Your task to perform on an android device: Go to location settings Image 0: 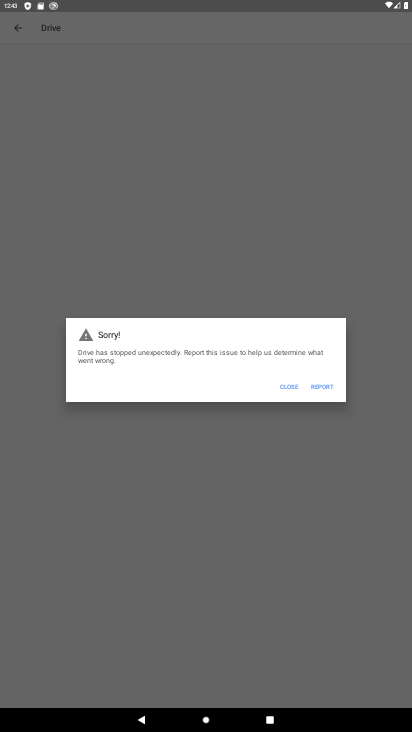
Step 0: press home button
Your task to perform on an android device: Go to location settings Image 1: 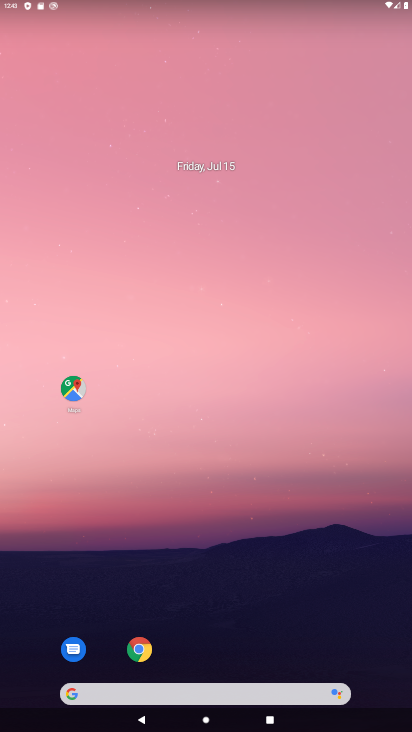
Step 1: drag from (228, 636) to (358, 15)
Your task to perform on an android device: Go to location settings Image 2: 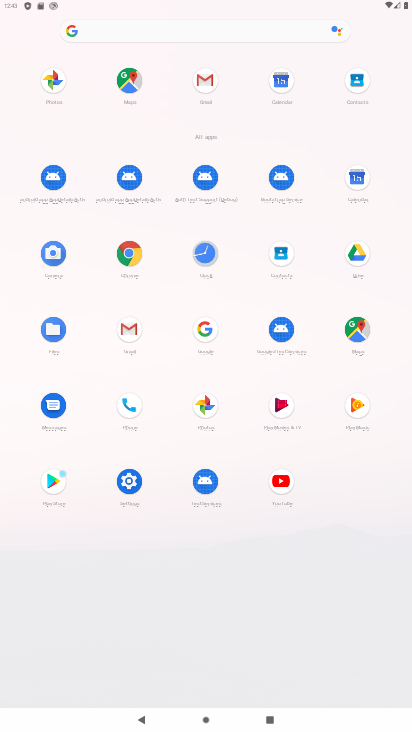
Step 2: click (125, 511)
Your task to perform on an android device: Go to location settings Image 3: 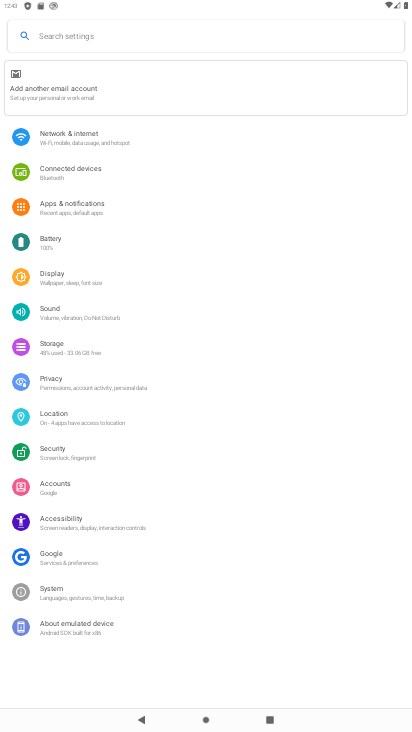
Step 3: click (65, 418)
Your task to perform on an android device: Go to location settings Image 4: 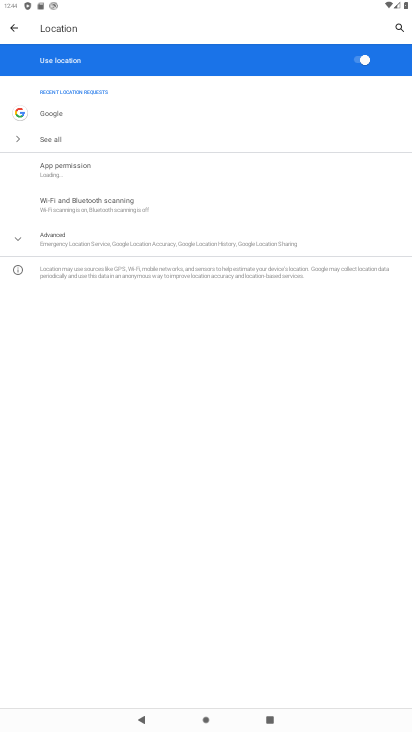
Step 4: task complete